Your task to perform on an android device: Show the shopping cart on ebay.com. Add asus zenbook to the cart on ebay.com, then select checkout. Image 0: 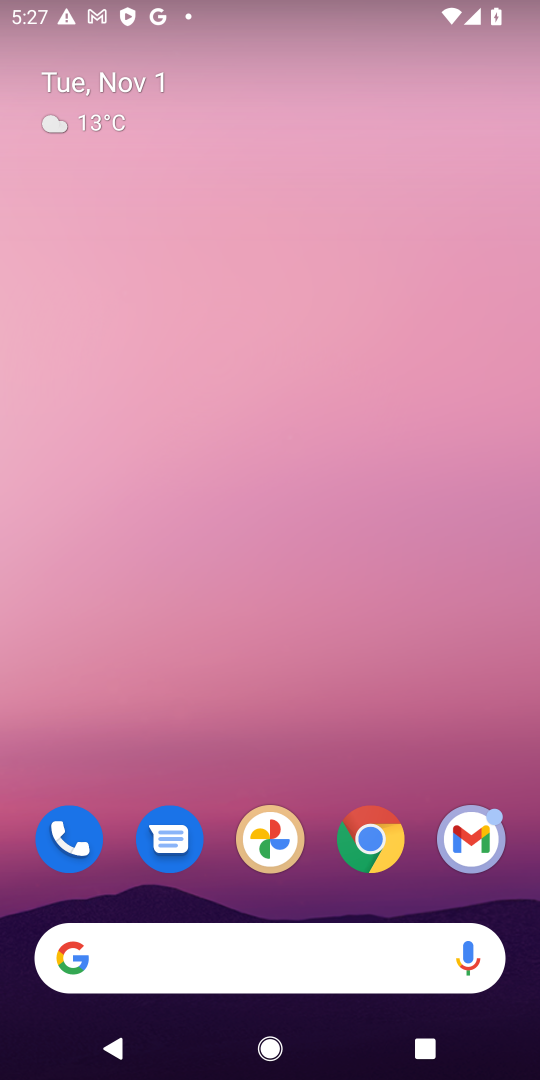
Step 0: drag from (318, 900) to (376, 186)
Your task to perform on an android device: Show the shopping cart on ebay.com. Add asus zenbook to the cart on ebay.com, then select checkout. Image 1: 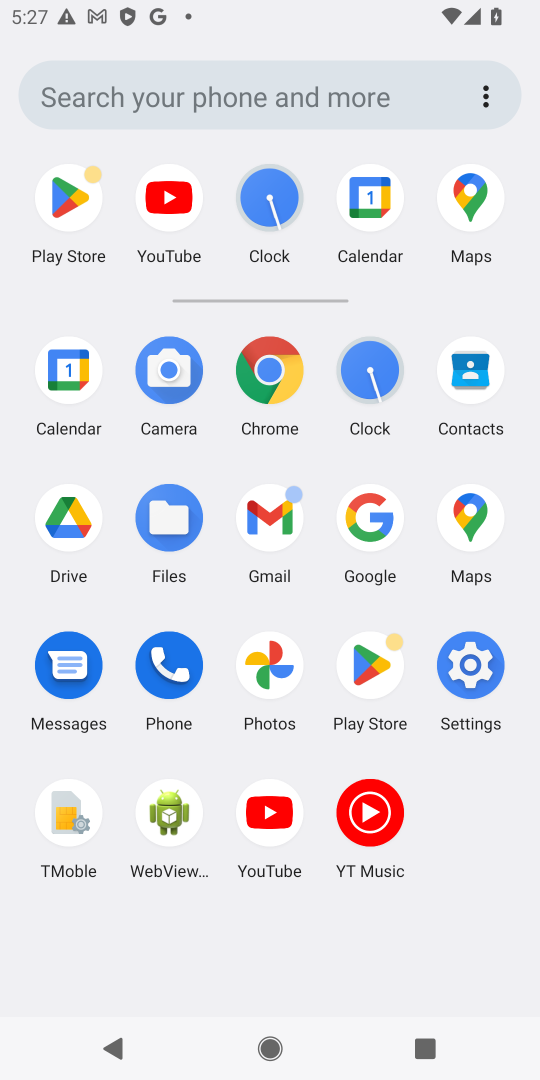
Step 1: click (269, 373)
Your task to perform on an android device: Show the shopping cart on ebay.com. Add asus zenbook to the cart on ebay.com, then select checkout. Image 2: 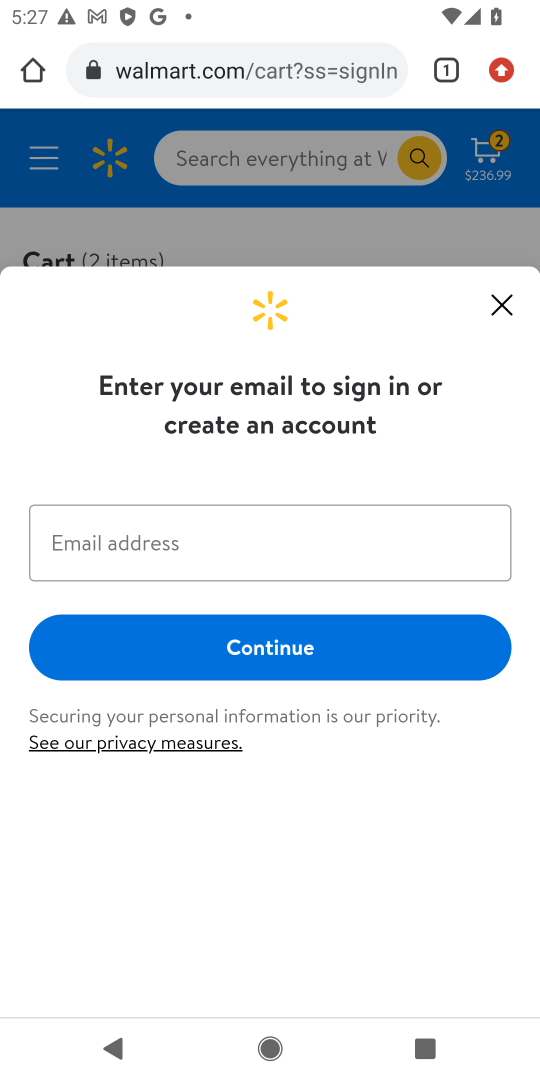
Step 2: click (346, 76)
Your task to perform on an android device: Show the shopping cart on ebay.com. Add asus zenbook to the cart on ebay.com, then select checkout. Image 3: 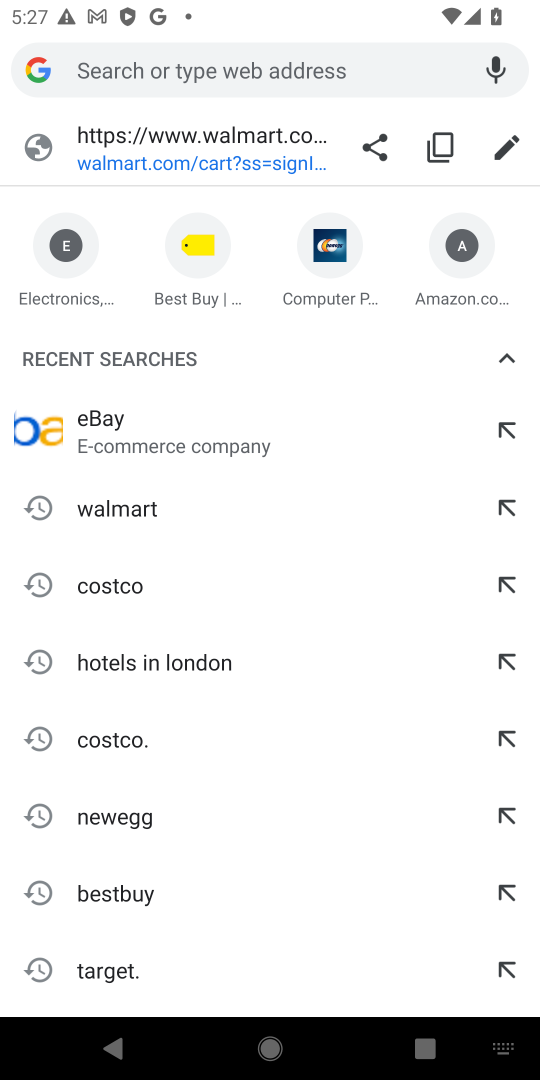
Step 3: type "ebay.com"
Your task to perform on an android device: Show the shopping cart on ebay.com. Add asus zenbook to the cart on ebay.com, then select checkout. Image 4: 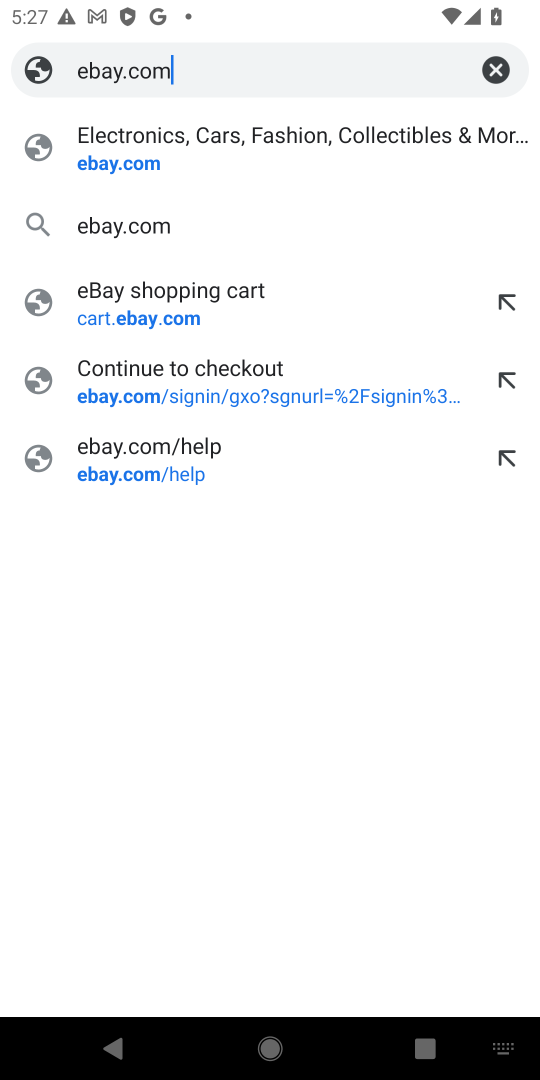
Step 4: press enter
Your task to perform on an android device: Show the shopping cart on ebay.com. Add asus zenbook to the cart on ebay.com, then select checkout. Image 5: 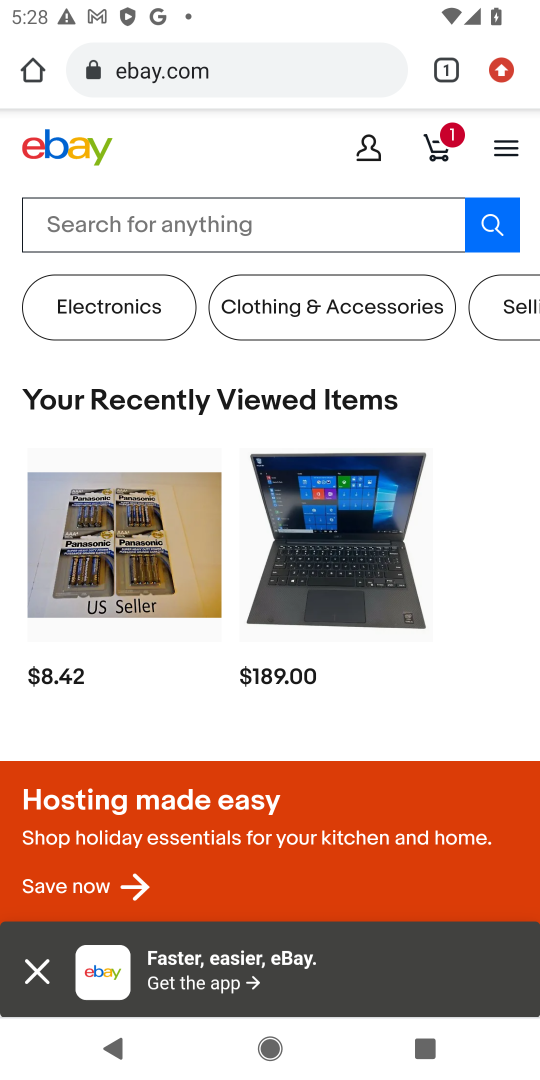
Step 5: click (445, 137)
Your task to perform on an android device: Show the shopping cart on ebay.com. Add asus zenbook to the cart on ebay.com, then select checkout. Image 6: 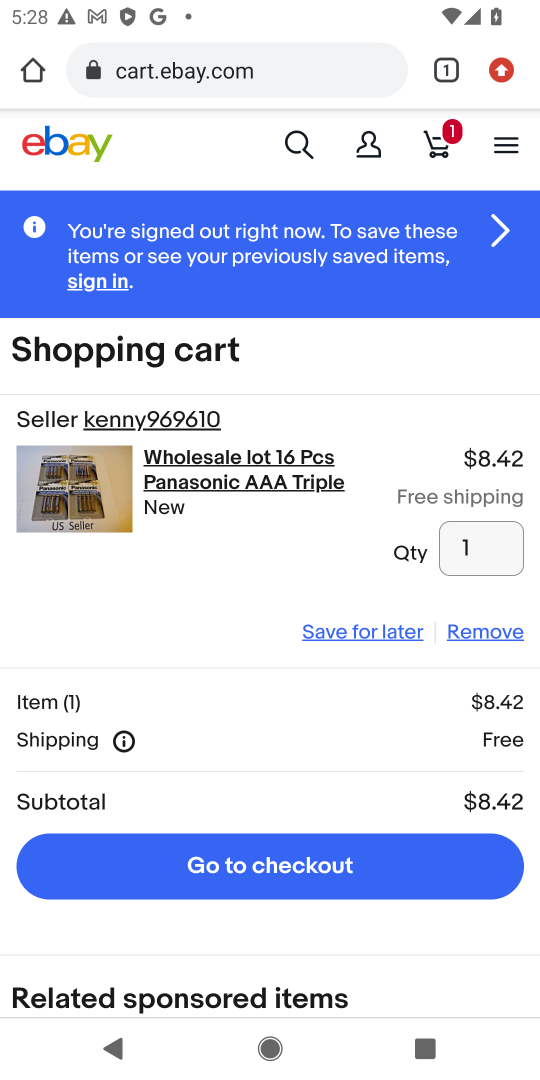
Step 6: click (291, 128)
Your task to perform on an android device: Show the shopping cart on ebay.com. Add asus zenbook to the cart on ebay.com, then select checkout. Image 7: 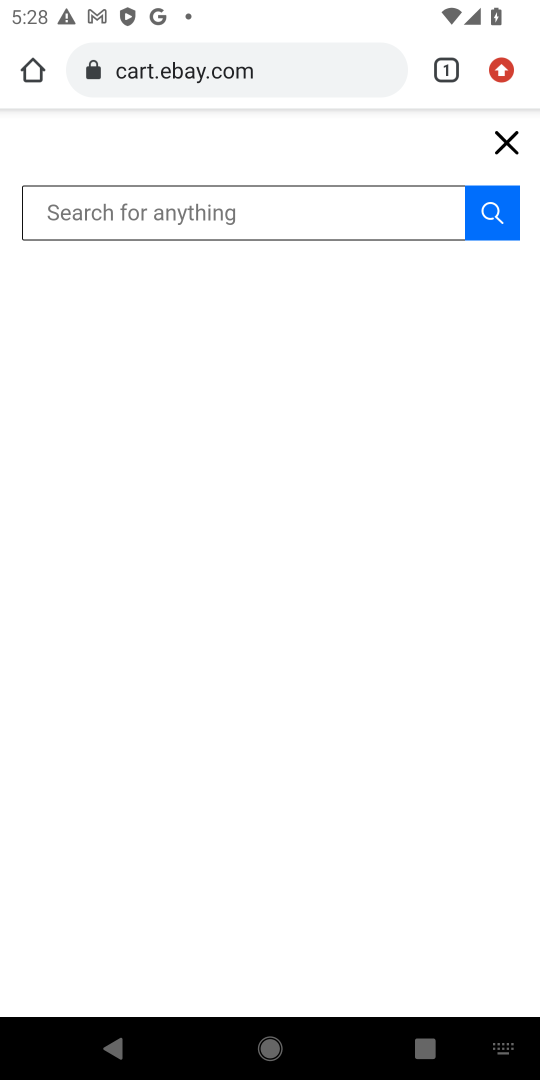
Step 7: type "asus zenbook"
Your task to perform on an android device: Show the shopping cart on ebay.com. Add asus zenbook to the cart on ebay.com, then select checkout. Image 8: 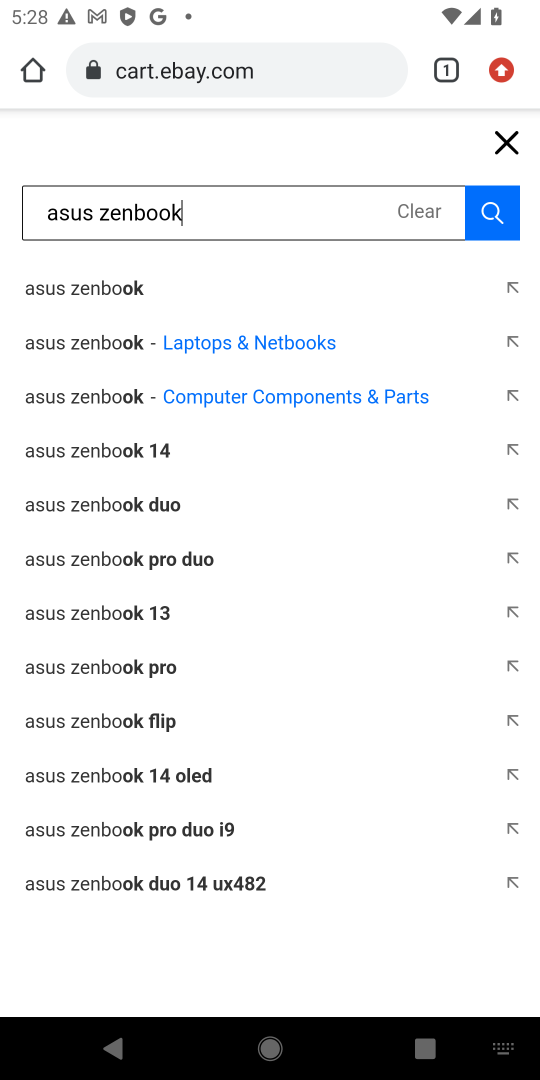
Step 8: press enter
Your task to perform on an android device: Show the shopping cart on ebay.com. Add asus zenbook to the cart on ebay.com, then select checkout. Image 9: 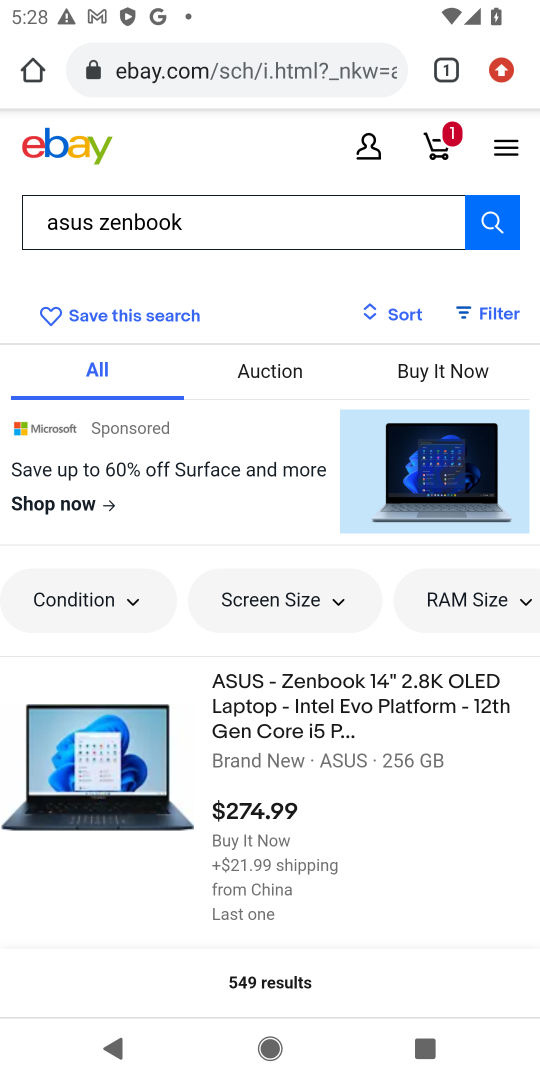
Step 9: drag from (374, 890) to (399, 678)
Your task to perform on an android device: Show the shopping cart on ebay.com. Add asus zenbook to the cart on ebay.com, then select checkout. Image 10: 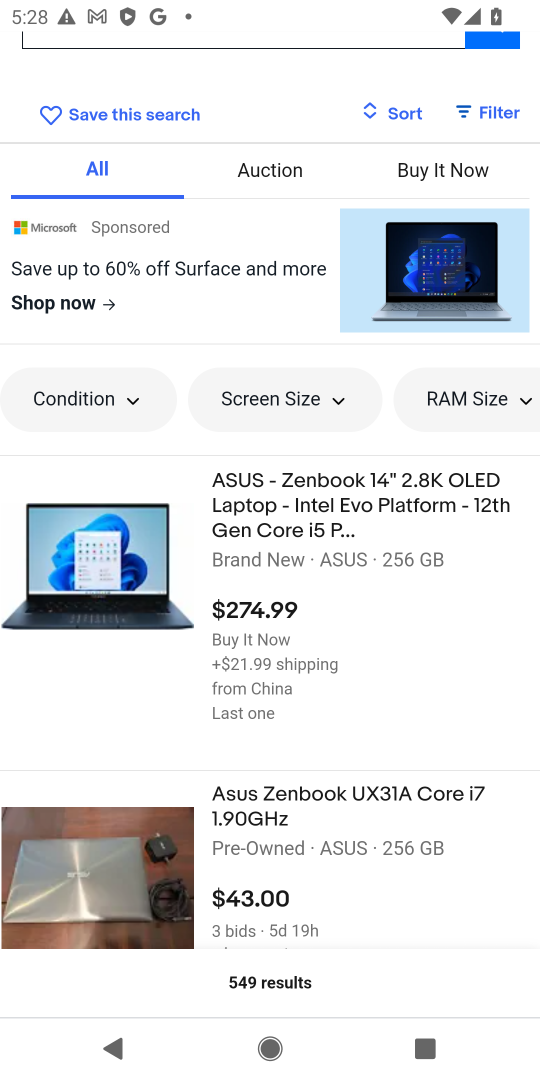
Step 10: click (92, 519)
Your task to perform on an android device: Show the shopping cart on ebay.com. Add asus zenbook to the cart on ebay.com, then select checkout. Image 11: 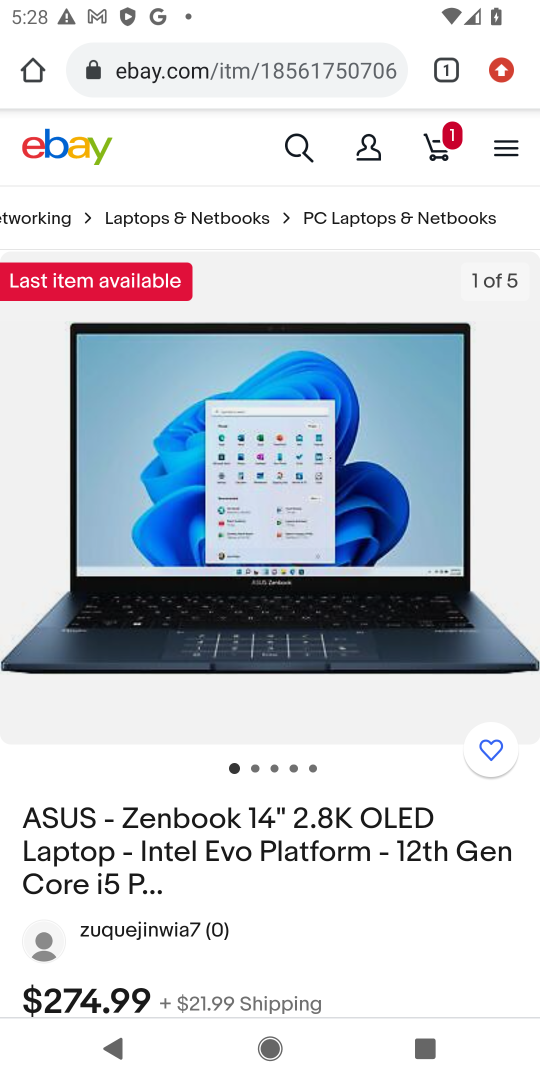
Step 11: drag from (355, 852) to (411, 390)
Your task to perform on an android device: Show the shopping cart on ebay.com. Add asus zenbook to the cart on ebay.com, then select checkout. Image 12: 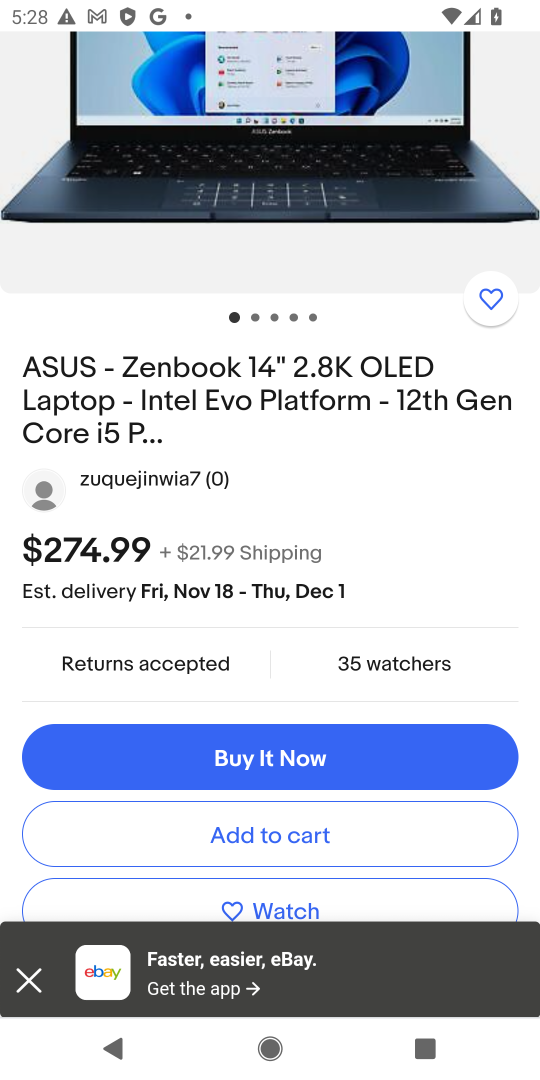
Step 12: click (255, 831)
Your task to perform on an android device: Show the shopping cart on ebay.com. Add asus zenbook to the cart on ebay.com, then select checkout. Image 13: 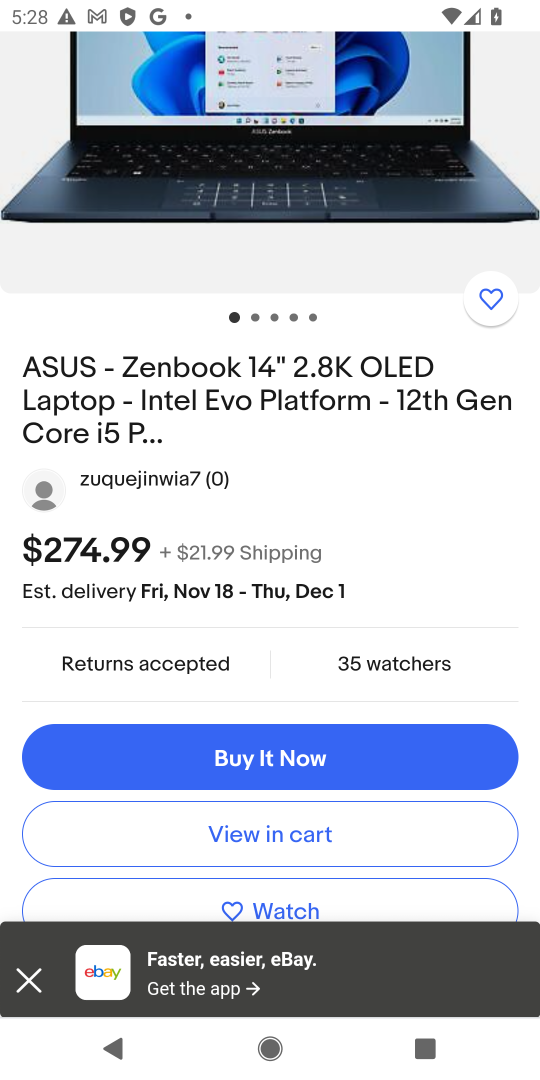
Step 13: click (255, 831)
Your task to perform on an android device: Show the shopping cart on ebay.com. Add asus zenbook to the cart on ebay.com, then select checkout. Image 14: 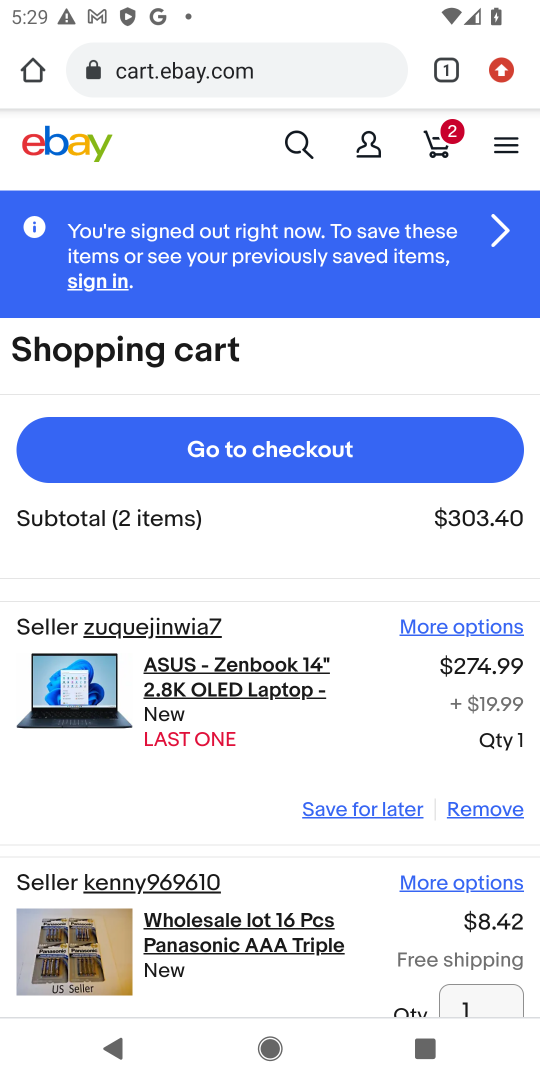
Step 14: click (393, 453)
Your task to perform on an android device: Show the shopping cart on ebay.com. Add asus zenbook to the cart on ebay.com, then select checkout. Image 15: 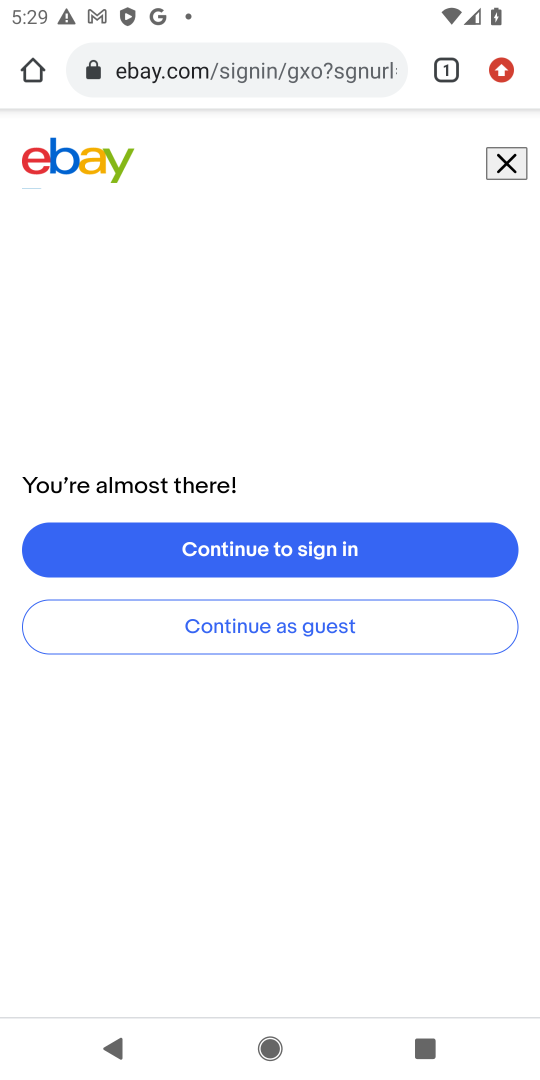
Step 15: task complete